Your task to perform on an android device: Go to settings Image 0: 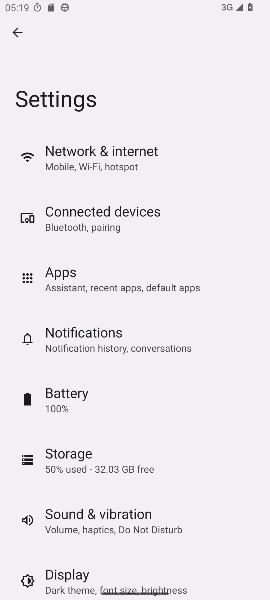
Step 0: task complete